Your task to perform on an android device: Do I have any events today? Image 0: 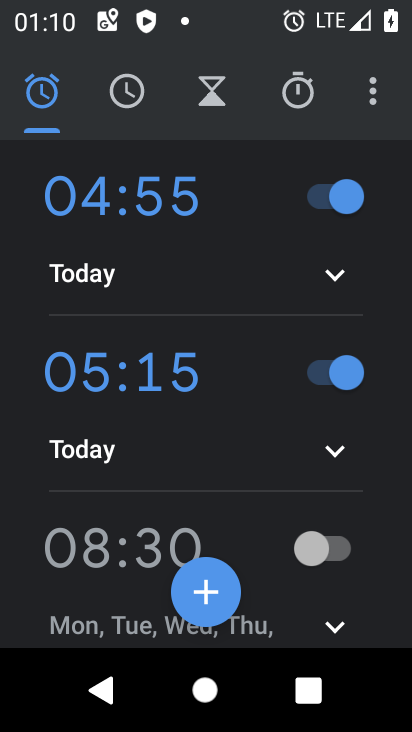
Step 0: press home button
Your task to perform on an android device: Do I have any events today? Image 1: 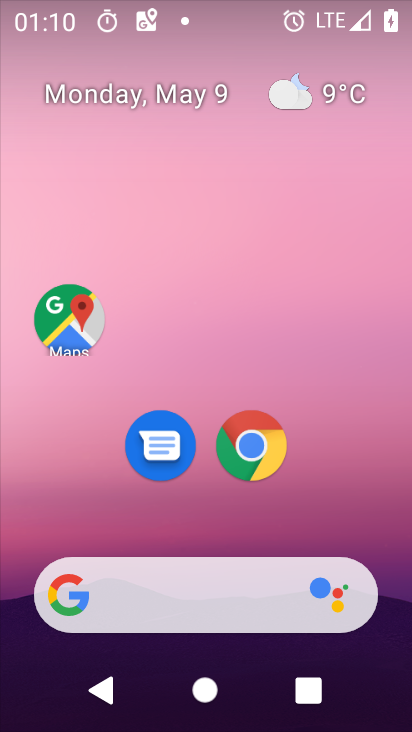
Step 1: drag from (376, 568) to (370, 41)
Your task to perform on an android device: Do I have any events today? Image 2: 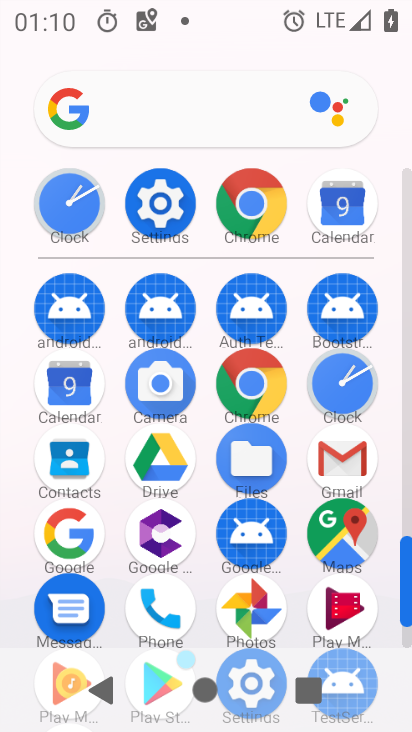
Step 2: click (340, 208)
Your task to perform on an android device: Do I have any events today? Image 3: 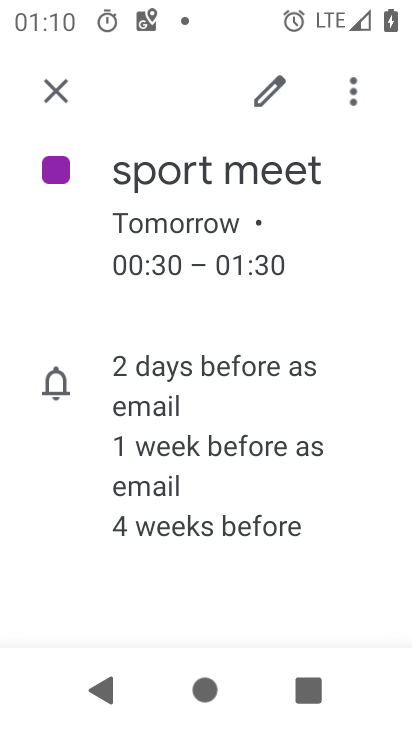
Step 3: click (62, 94)
Your task to perform on an android device: Do I have any events today? Image 4: 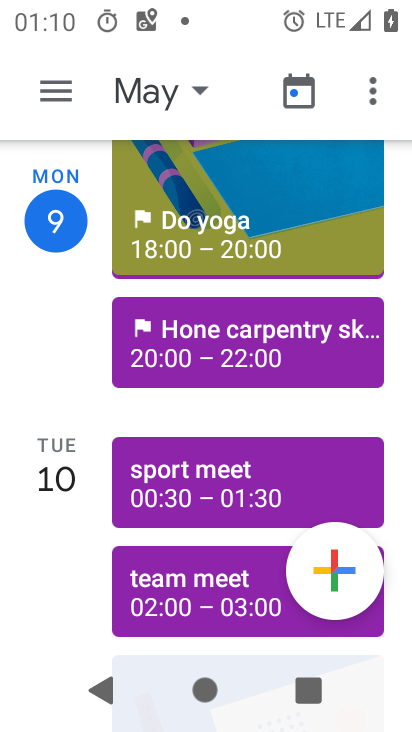
Step 4: click (231, 347)
Your task to perform on an android device: Do I have any events today? Image 5: 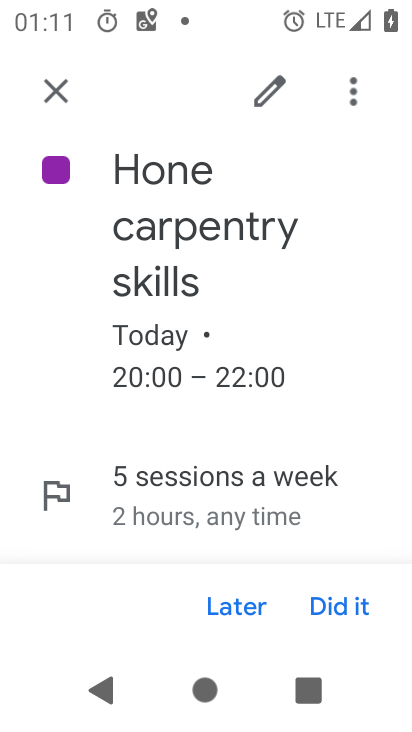
Step 5: task complete